Your task to perform on an android device: Open the Play Movies app and select the watchlist tab. Image 0: 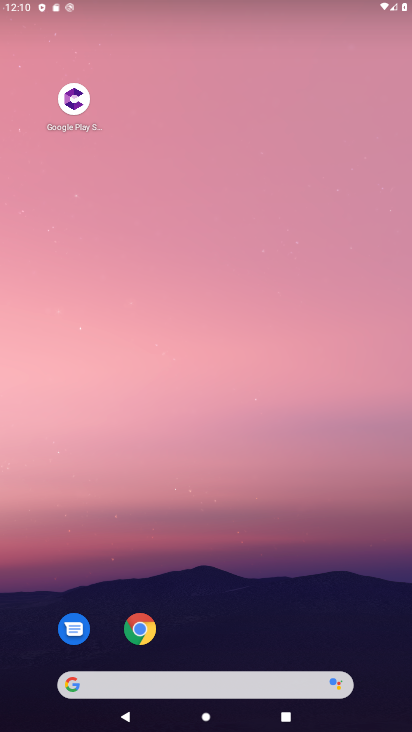
Step 0: press home button
Your task to perform on an android device: Open the Play Movies app and select the watchlist tab. Image 1: 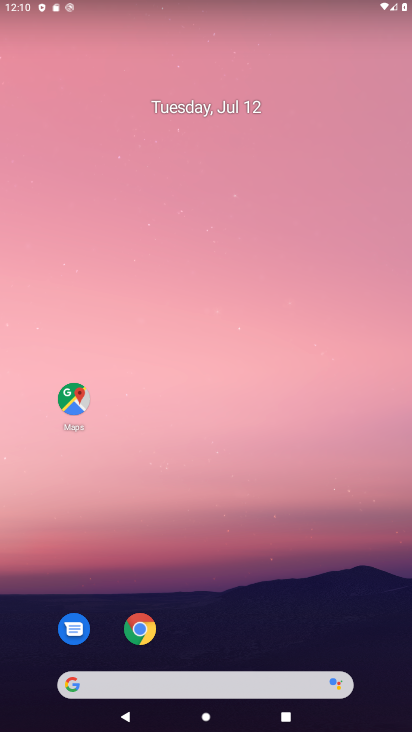
Step 1: drag from (373, 715) to (290, 192)
Your task to perform on an android device: Open the Play Movies app and select the watchlist tab. Image 2: 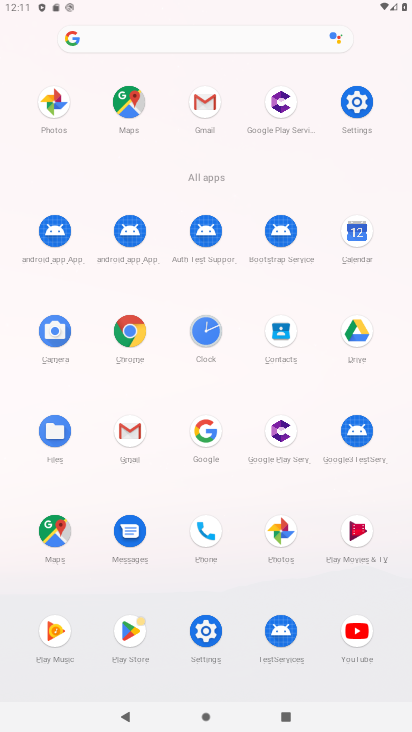
Step 2: click (358, 539)
Your task to perform on an android device: Open the Play Movies app and select the watchlist tab. Image 3: 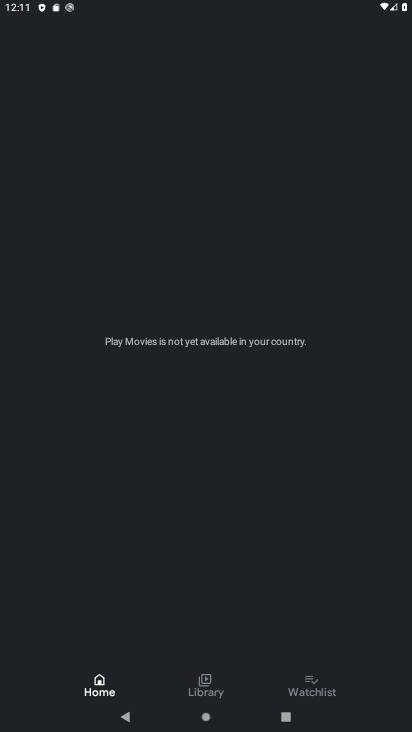
Step 3: click (325, 678)
Your task to perform on an android device: Open the Play Movies app and select the watchlist tab. Image 4: 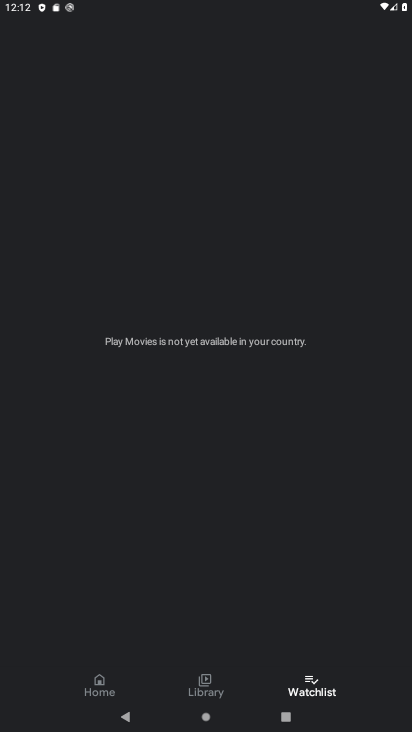
Step 4: task complete